Your task to perform on an android device: open chrome and create a bookmark for the current page Image 0: 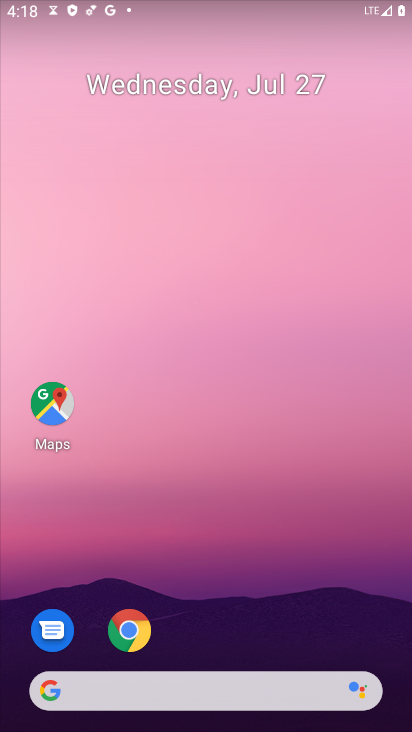
Step 0: click (137, 638)
Your task to perform on an android device: open chrome and create a bookmark for the current page Image 1: 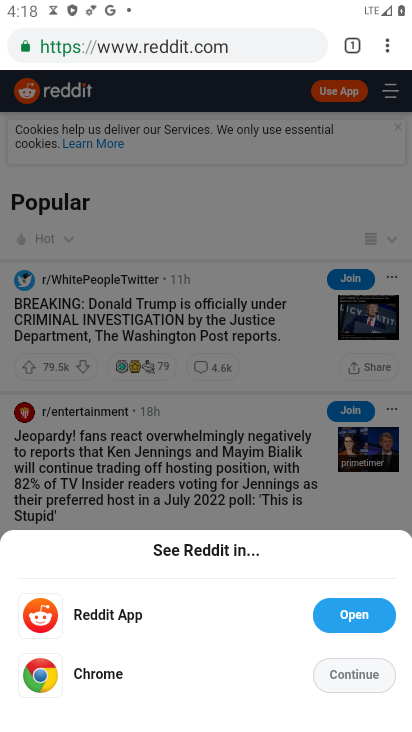
Step 1: click (390, 41)
Your task to perform on an android device: open chrome and create a bookmark for the current page Image 2: 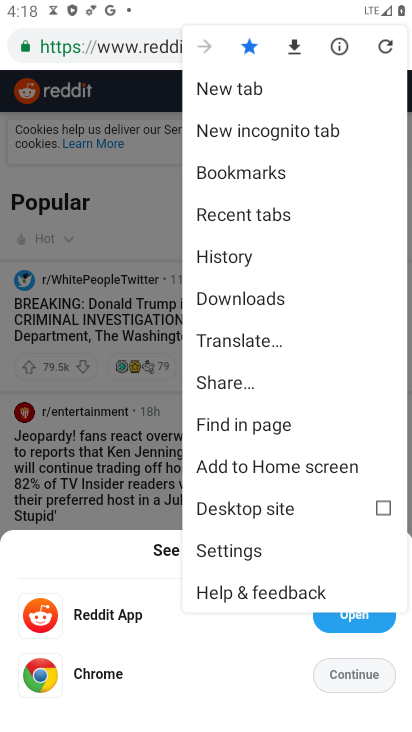
Step 2: task complete